Your task to perform on an android device: toggle location history Image 0: 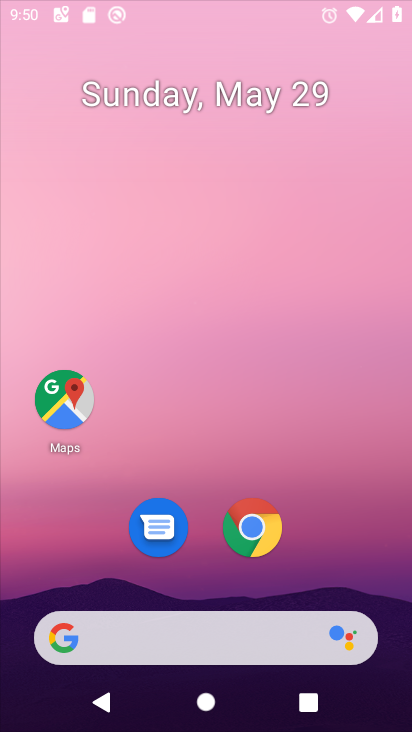
Step 0: press home button
Your task to perform on an android device: toggle location history Image 1: 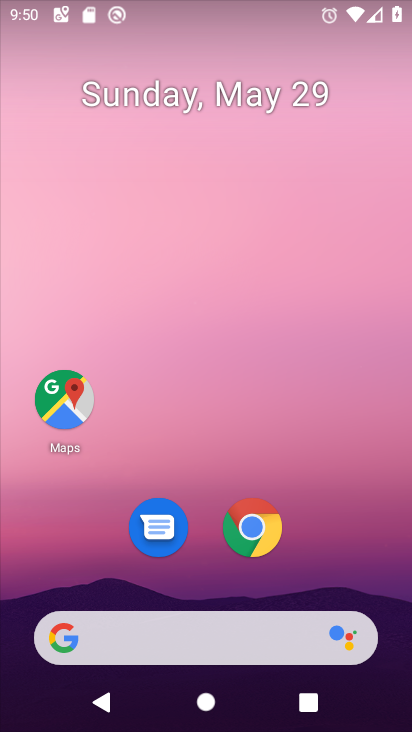
Step 1: drag from (204, 580) to (210, 204)
Your task to perform on an android device: toggle location history Image 2: 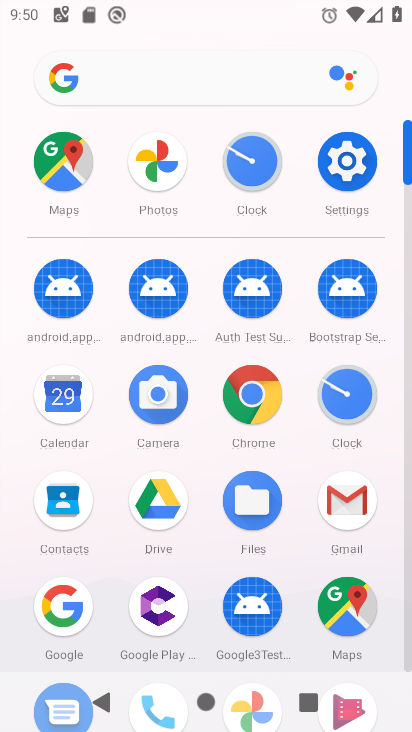
Step 2: click (345, 155)
Your task to perform on an android device: toggle location history Image 3: 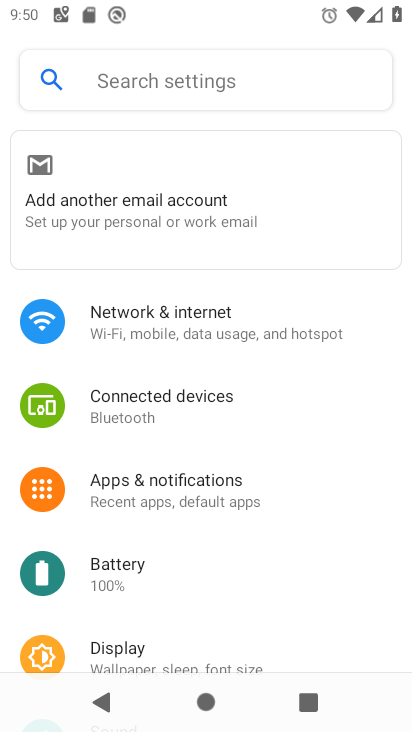
Step 3: drag from (231, 612) to (261, 177)
Your task to perform on an android device: toggle location history Image 4: 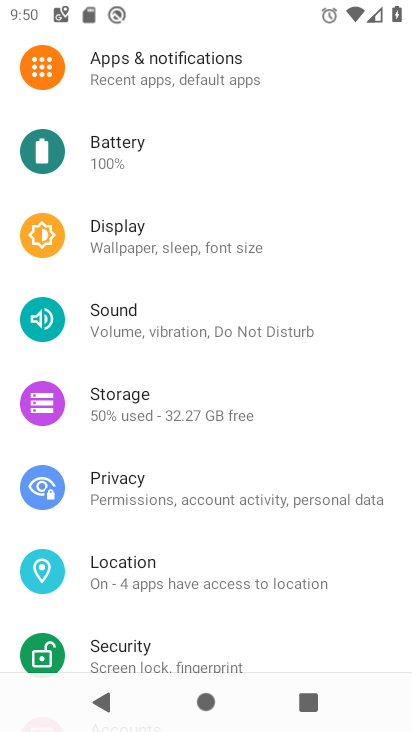
Step 4: click (188, 558)
Your task to perform on an android device: toggle location history Image 5: 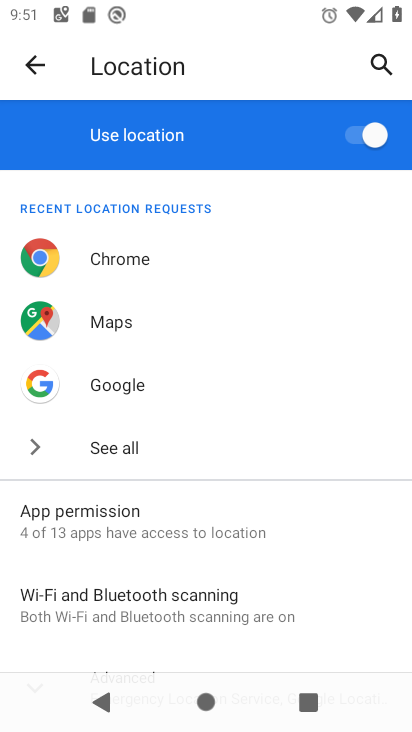
Step 5: drag from (178, 605) to (209, 223)
Your task to perform on an android device: toggle location history Image 6: 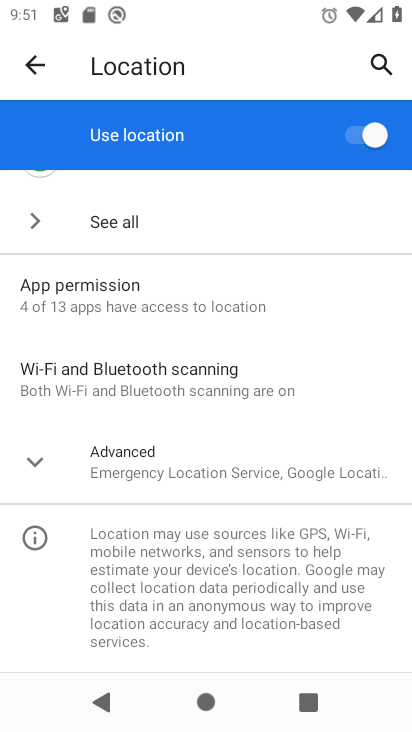
Step 6: click (78, 468)
Your task to perform on an android device: toggle location history Image 7: 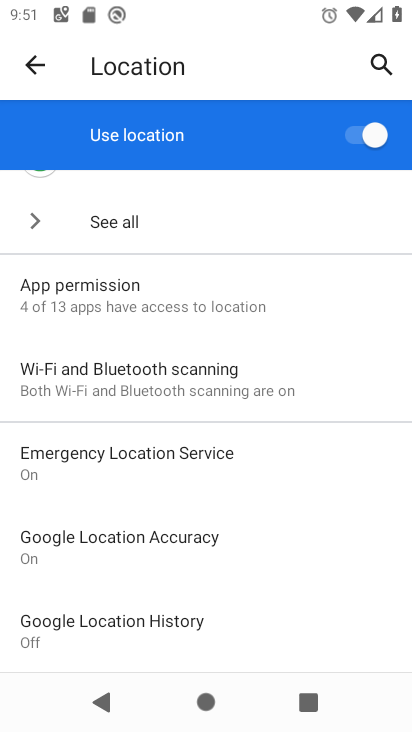
Step 7: click (160, 626)
Your task to perform on an android device: toggle location history Image 8: 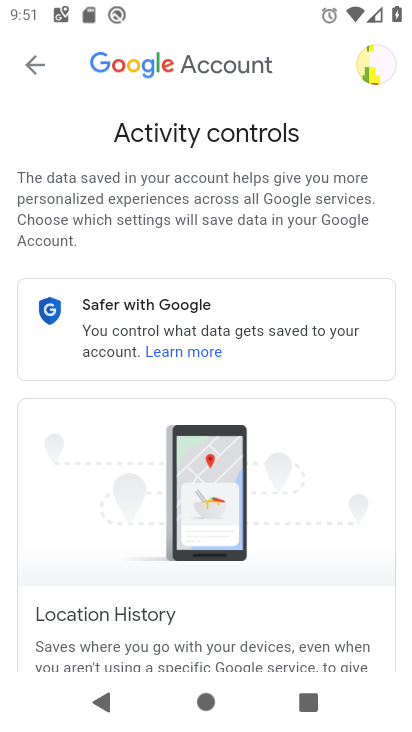
Step 8: task complete